Your task to perform on an android device: change alarm snooze length Image 0: 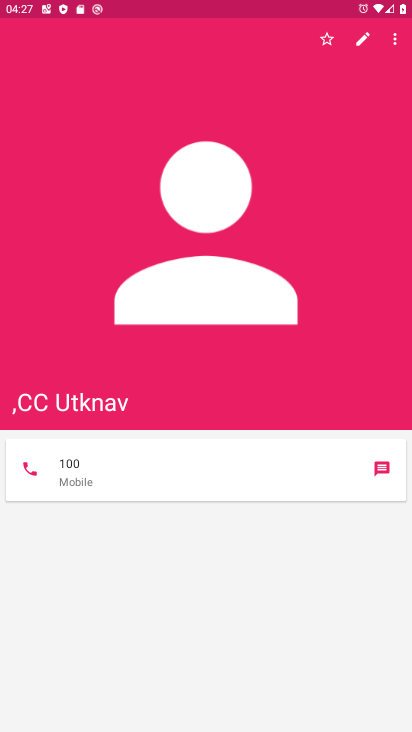
Step 0: type ""
Your task to perform on an android device: change alarm snooze length Image 1: 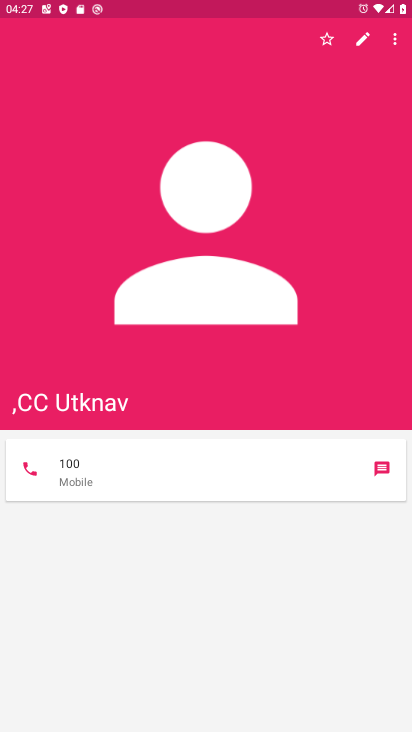
Step 1: press home button
Your task to perform on an android device: change alarm snooze length Image 2: 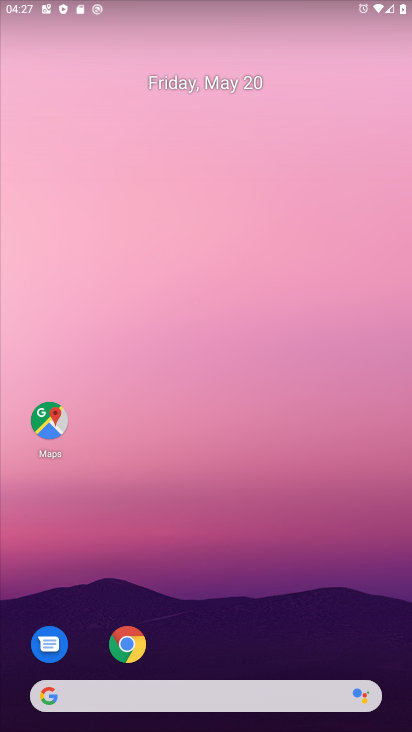
Step 2: drag from (342, 631) to (210, 78)
Your task to perform on an android device: change alarm snooze length Image 3: 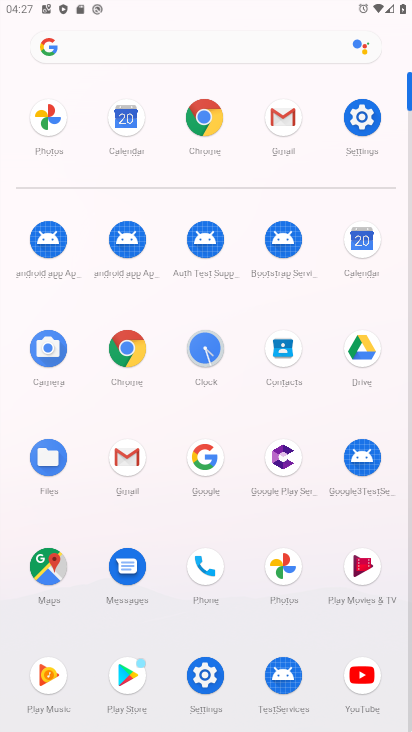
Step 3: click (352, 127)
Your task to perform on an android device: change alarm snooze length Image 4: 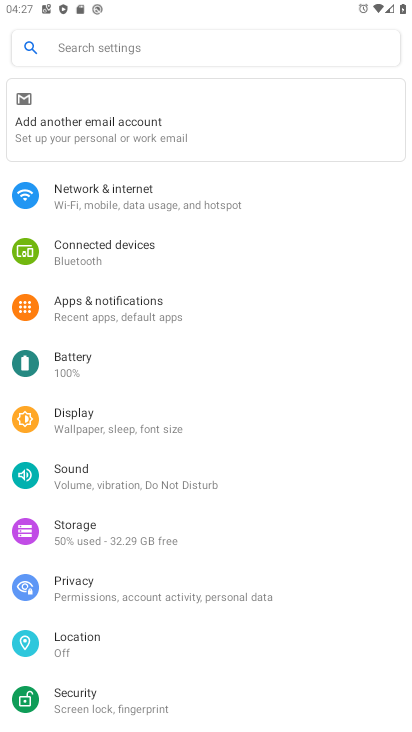
Step 4: press home button
Your task to perform on an android device: change alarm snooze length Image 5: 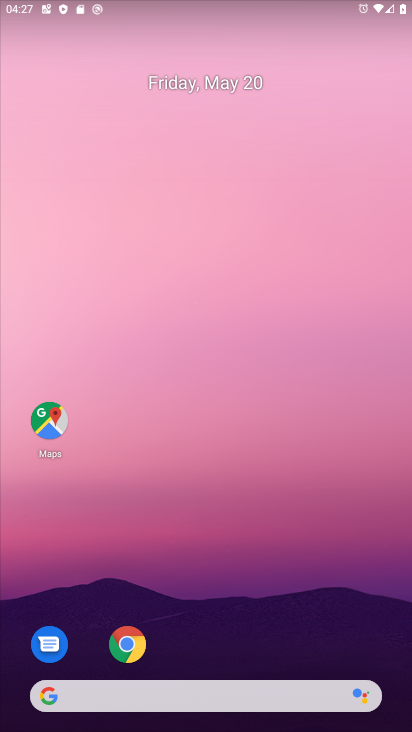
Step 5: drag from (266, 575) to (282, 111)
Your task to perform on an android device: change alarm snooze length Image 6: 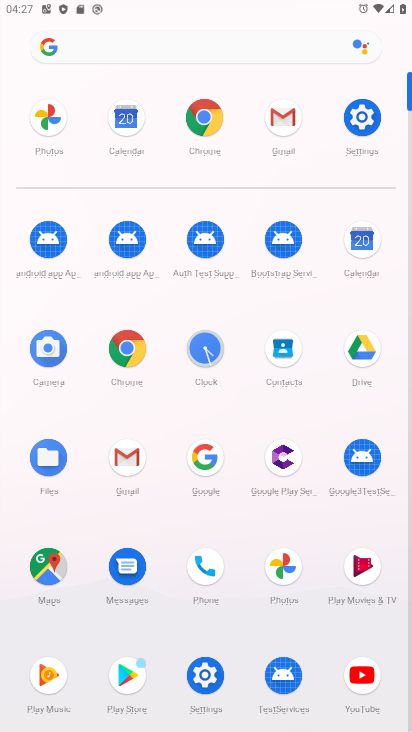
Step 6: click (204, 362)
Your task to perform on an android device: change alarm snooze length Image 7: 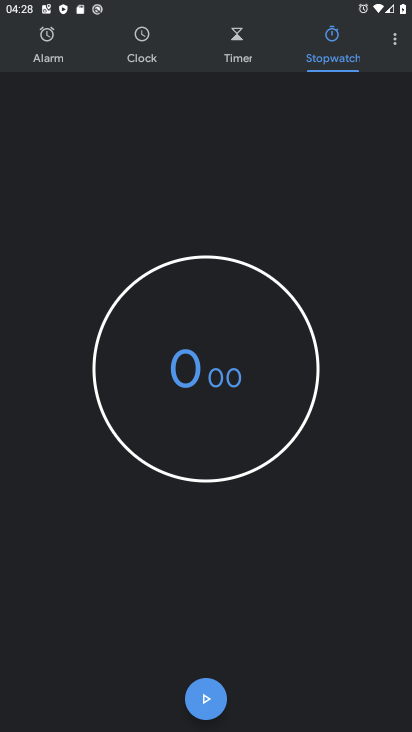
Step 7: click (398, 34)
Your task to perform on an android device: change alarm snooze length Image 8: 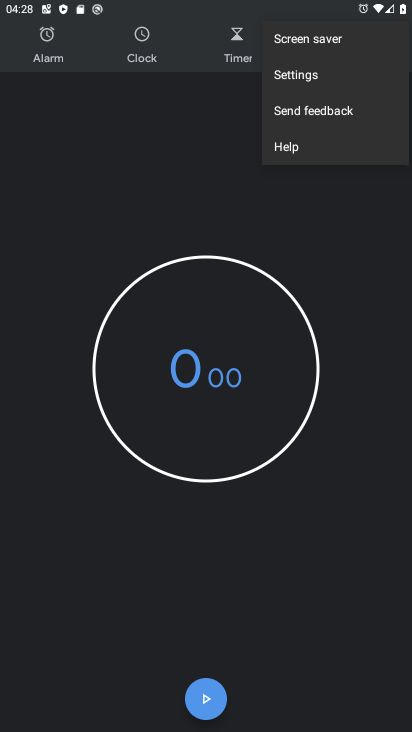
Step 8: click (328, 62)
Your task to perform on an android device: change alarm snooze length Image 9: 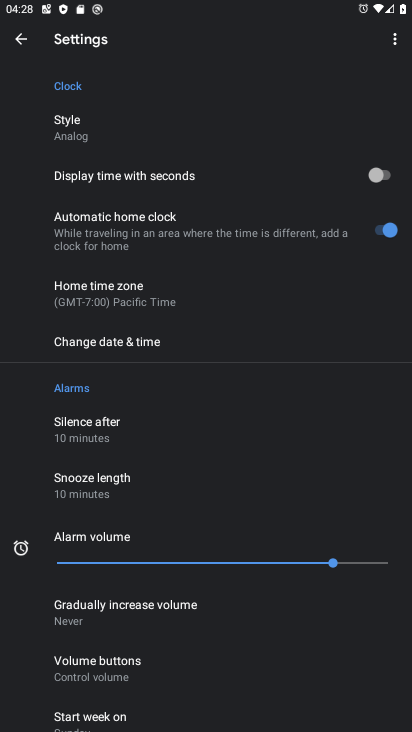
Step 9: click (111, 483)
Your task to perform on an android device: change alarm snooze length Image 10: 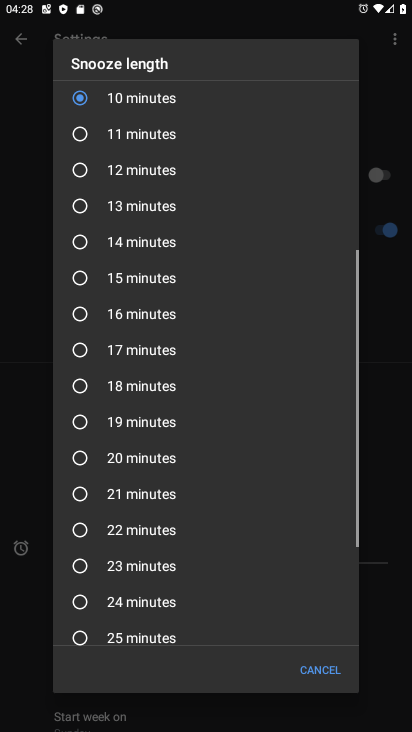
Step 10: click (164, 348)
Your task to perform on an android device: change alarm snooze length Image 11: 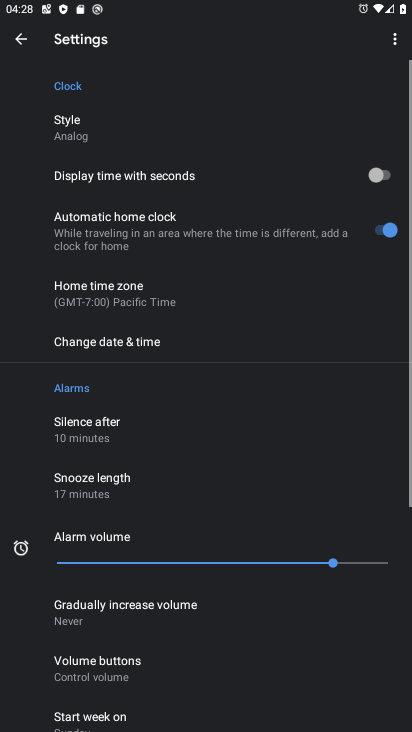
Step 11: task complete